Your task to perform on an android device: turn on the 24-hour format for clock Image 0: 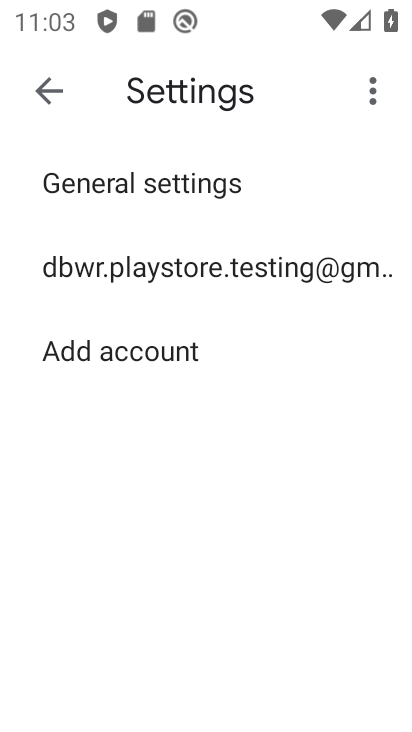
Step 0: press home button
Your task to perform on an android device: turn on the 24-hour format for clock Image 1: 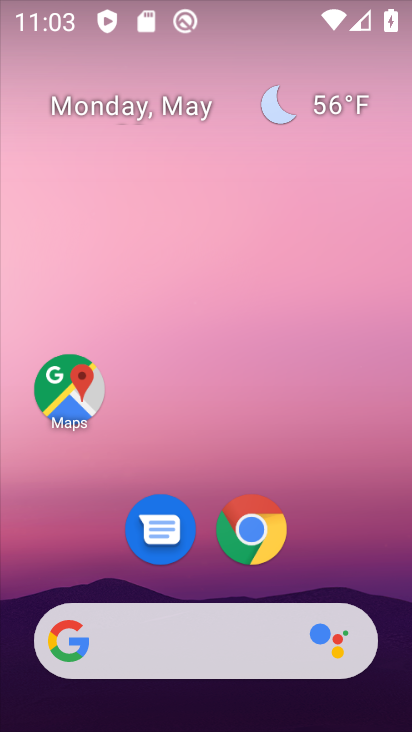
Step 1: drag from (318, 553) to (239, 133)
Your task to perform on an android device: turn on the 24-hour format for clock Image 2: 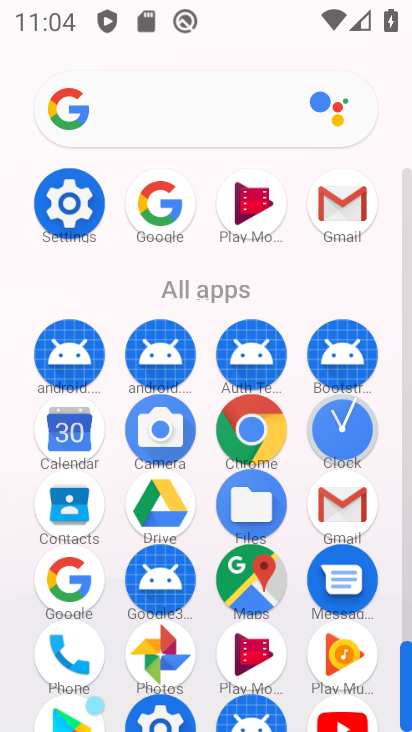
Step 2: click (343, 428)
Your task to perform on an android device: turn on the 24-hour format for clock Image 3: 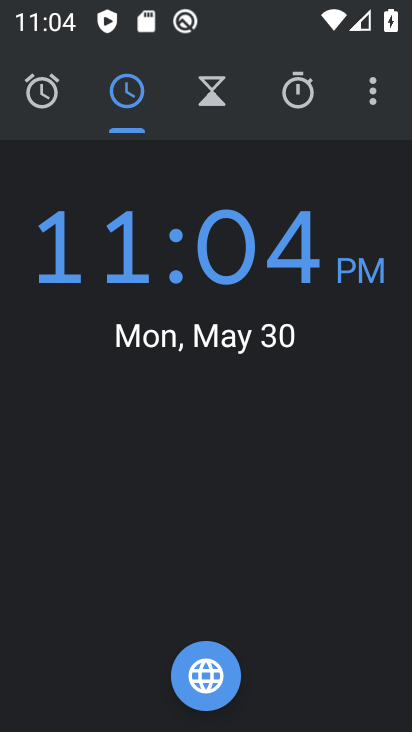
Step 3: click (377, 92)
Your task to perform on an android device: turn on the 24-hour format for clock Image 4: 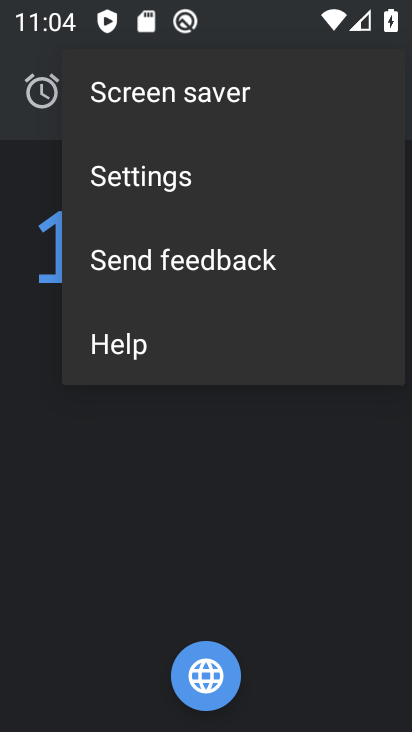
Step 4: click (135, 182)
Your task to perform on an android device: turn on the 24-hour format for clock Image 5: 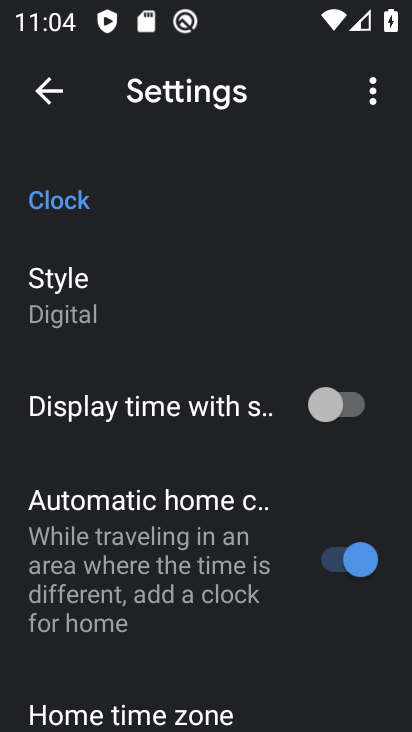
Step 5: drag from (195, 647) to (205, 461)
Your task to perform on an android device: turn on the 24-hour format for clock Image 6: 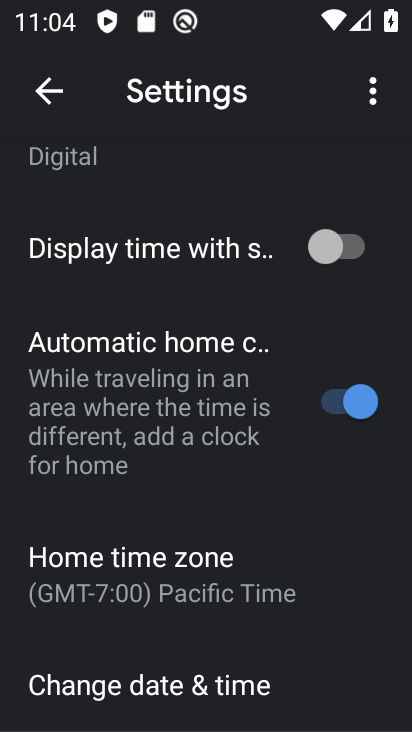
Step 6: drag from (143, 646) to (227, 518)
Your task to perform on an android device: turn on the 24-hour format for clock Image 7: 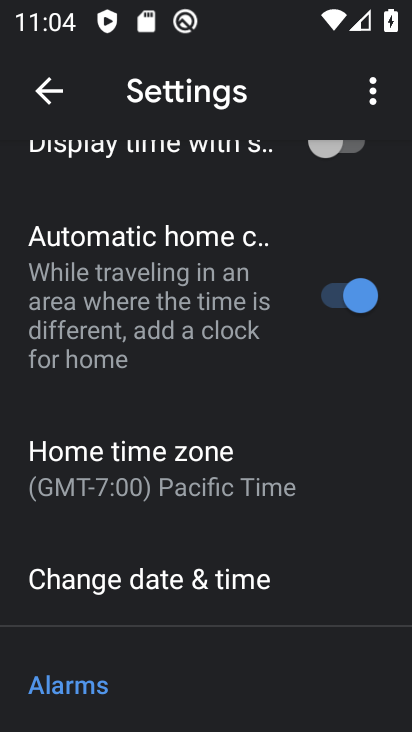
Step 7: click (214, 592)
Your task to perform on an android device: turn on the 24-hour format for clock Image 8: 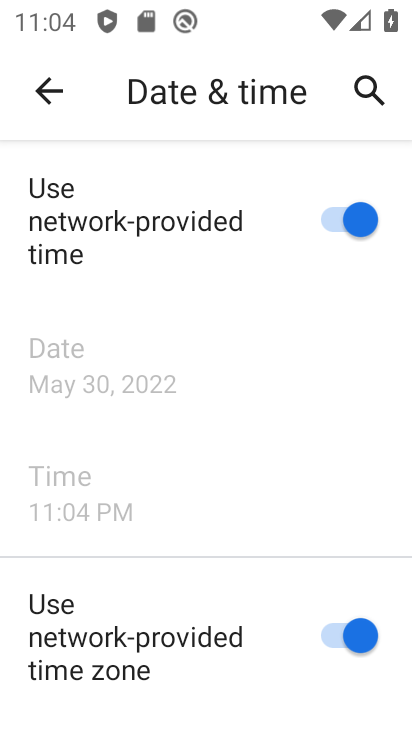
Step 8: drag from (205, 596) to (292, 409)
Your task to perform on an android device: turn on the 24-hour format for clock Image 9: 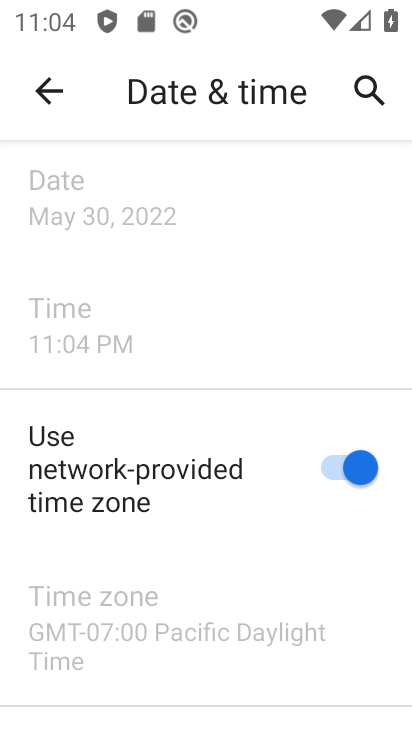
Step 9: drag from (202, 653) to (281, 356)
Your task to perform on an android device: turn on the 24-hour format for clock Image 10: 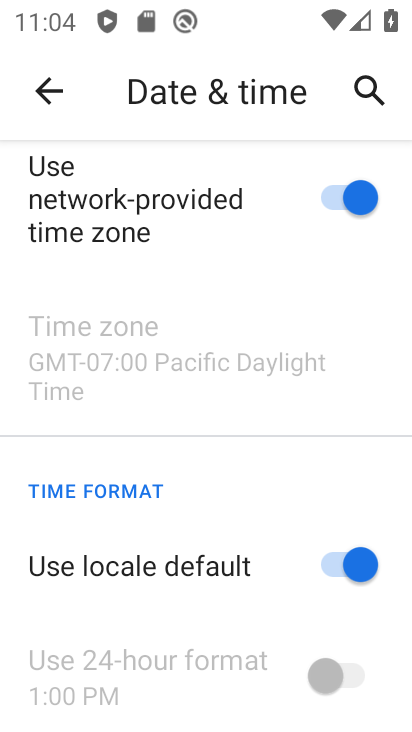
Step 10: drag from (158, 613) to (249, 478)
Your task to perform on an android device: turn on the 24-hour format for clock Image 11: 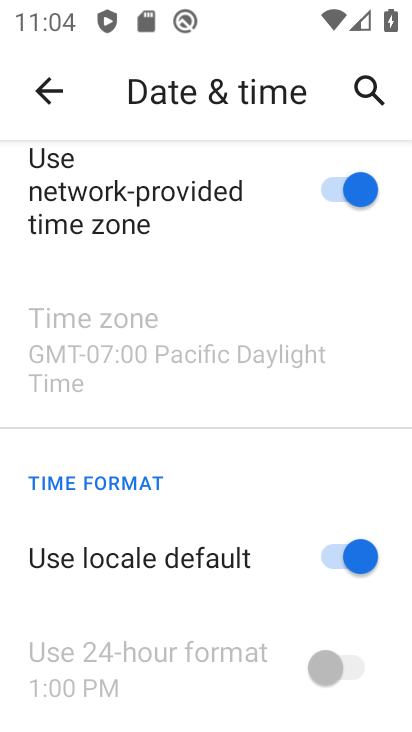
Step 11: click (340, 555)
Your task to perform on an android device: turn on the 24-hour format for clock Image 12: 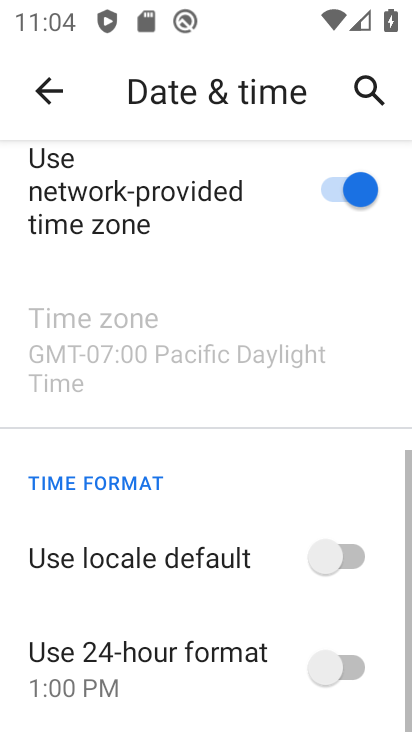
Step 12: click (332, 661)
Your task to perform on an android device: turn on the 24-hour format for clock Image 13: 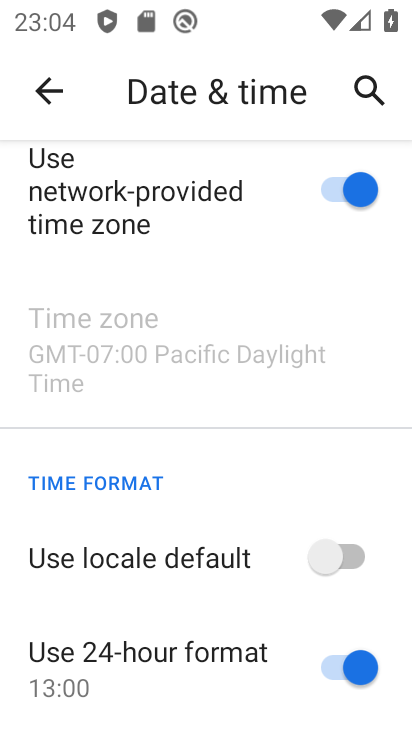
Step 13: task complete